Your task to perform on an android device: stop showing notifications on the lock screen Image 0: 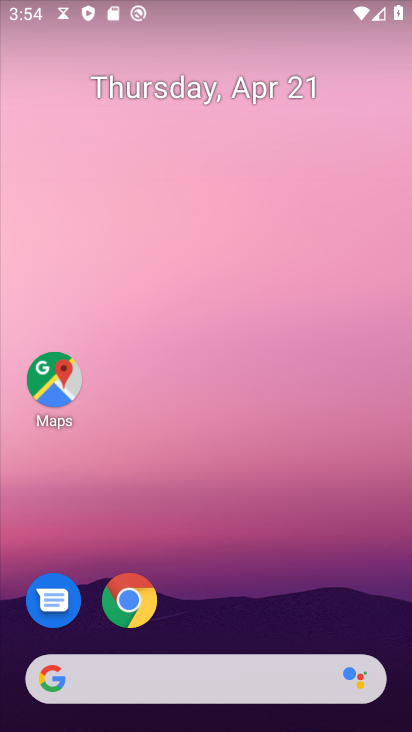
Step 0: drag from (250, 604) to (240, 89)
Your task to perform on an android device: stop showing notifications on the lock screen Image 1: 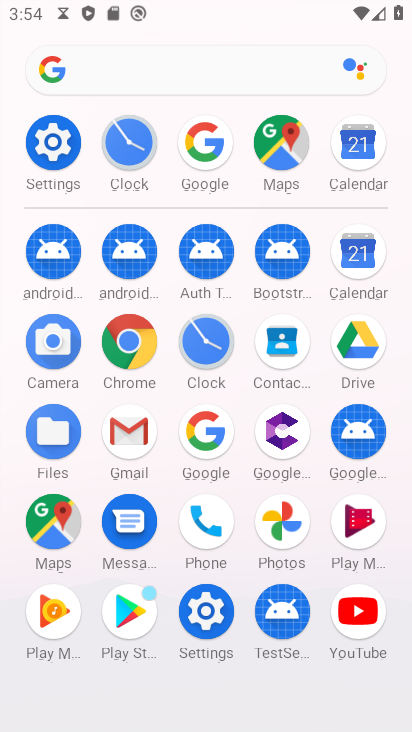
Step 1: click (53, 141)
Your task to perform on an android device: stop showing notifications on the lock screen Image 2: 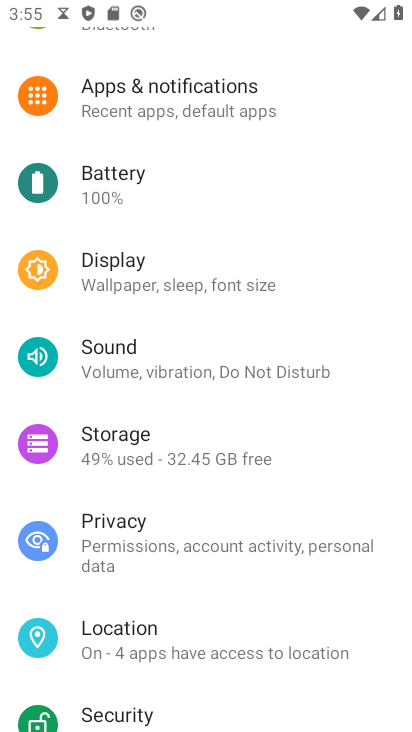
Step 2: click (195, 111)
Your task to perform on an android device: stop showing notifications on the lock screen Image 3: 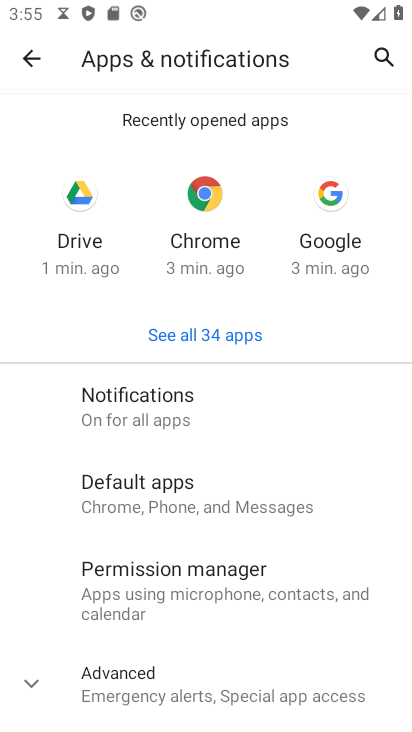
Step 3: click (164, 407)
Your task to perform on an android device: stop showing notifications on the lock screen Image 4: 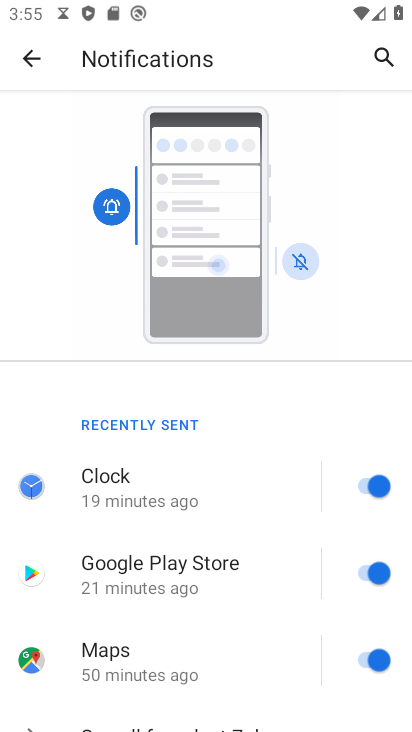
Step 4: drag from (209, 620) to (262, 452)
Your task to perform on an android device: stop showing notifications on the lock screen Image 5: 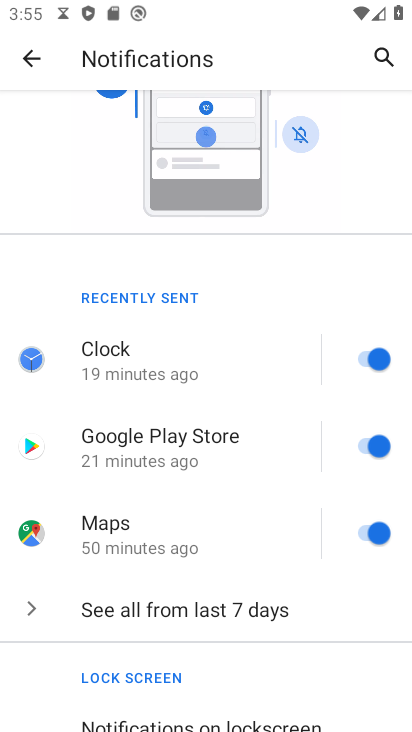
Step 5: drag from (221, 617) to (248, 481)
Your task to perform on an android device: stop showing notifications on the lock screen Image 6: 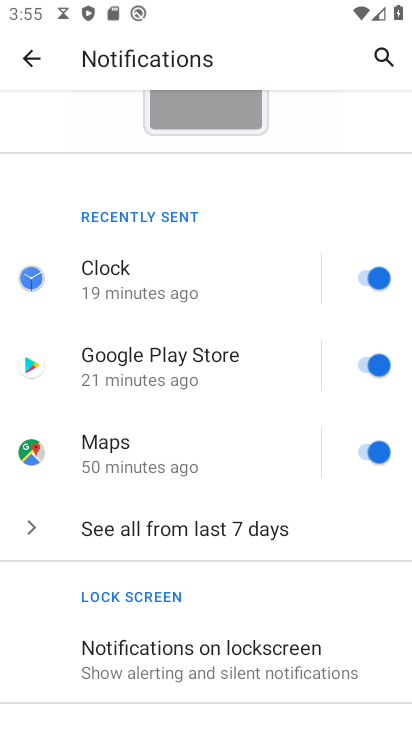
Step 6: click (211, 643)
Your task to perform on an android device: stop showing notifications on the lock screen Image 7: 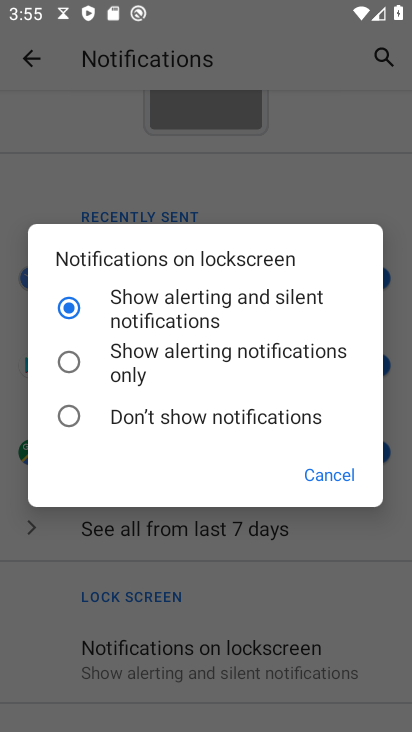
Step 7: click (70, 411)
Your task to perform on an android device: stop showing notifications on the lock screen Image 8: 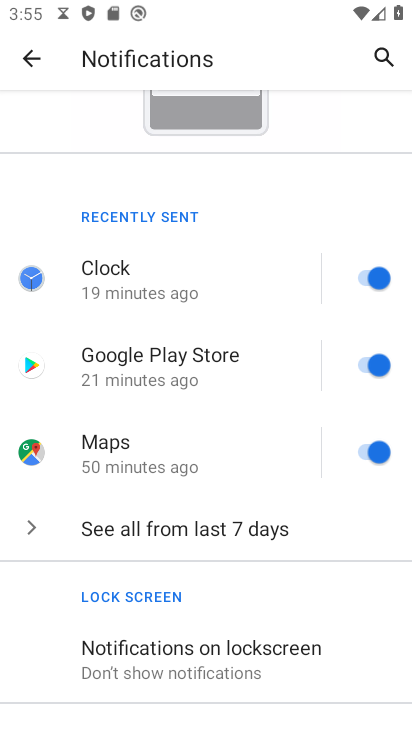
Step 8: task complete